Your task to perform on an android device: add a label to a message in the gmail app Image 0: 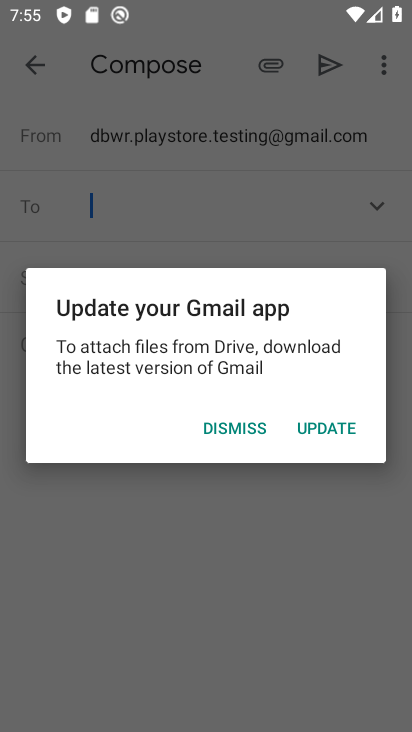
Step 0: press home button
Your task to perform on an android device: add a label to a message in the gmail app Image 1: 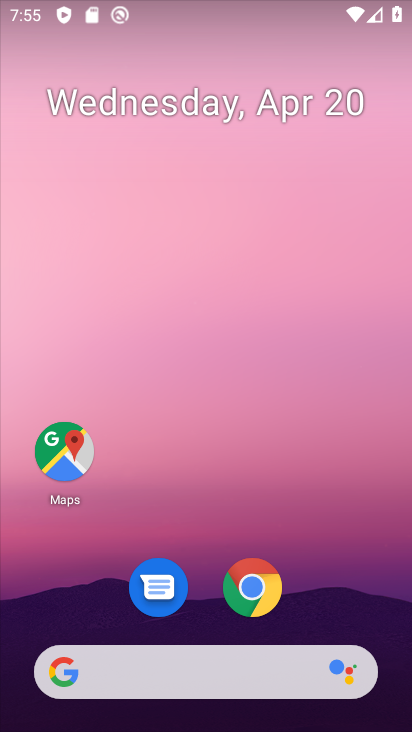
Step 1: drag from (329, 591) to (339, 164)
Your task to perform on an android device: add a label to a message in the gmail app Image 2: 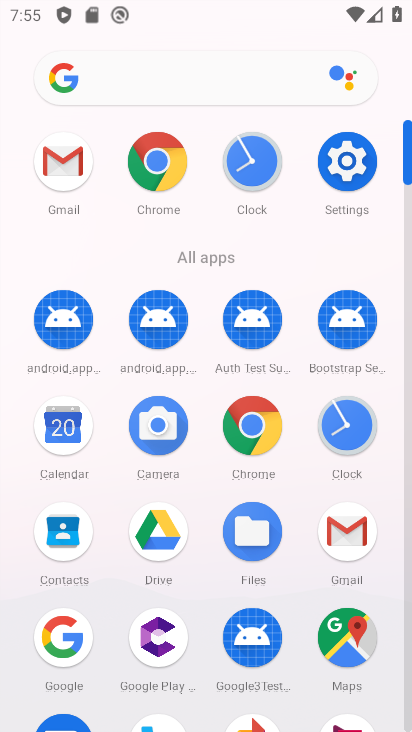
Step 2: click (362, 535)
Your task to perform on an android device: add a label to a message in the gmail app Image 3: 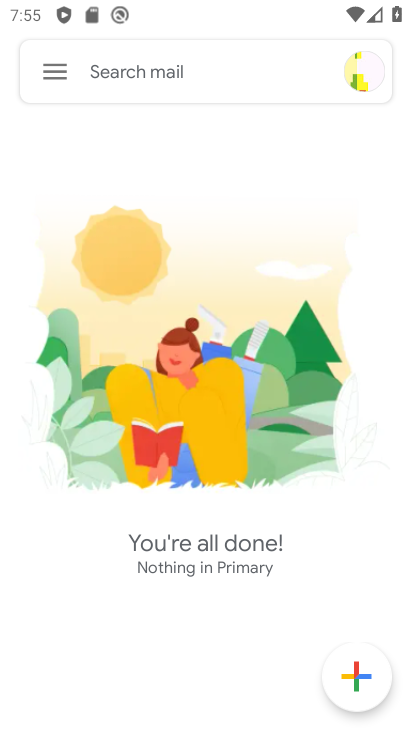
Step 3: click (61, 73)
Your task to perform on an android device: add a label to a message in the gmail app Image 4: 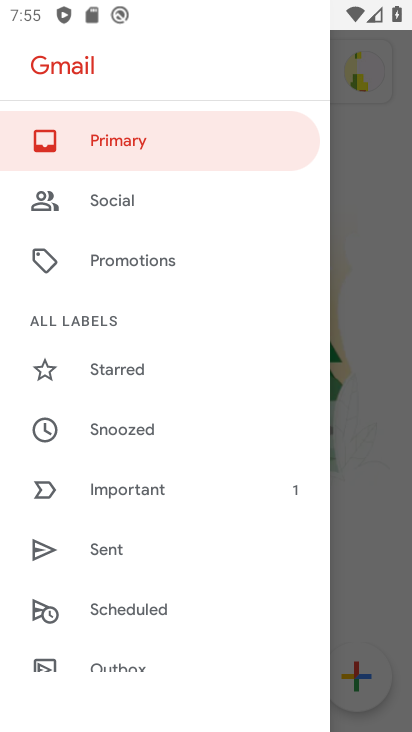
Step 4: task complete